Your task to perform on an android device: What's on the menu at Starbucks? Image 0: 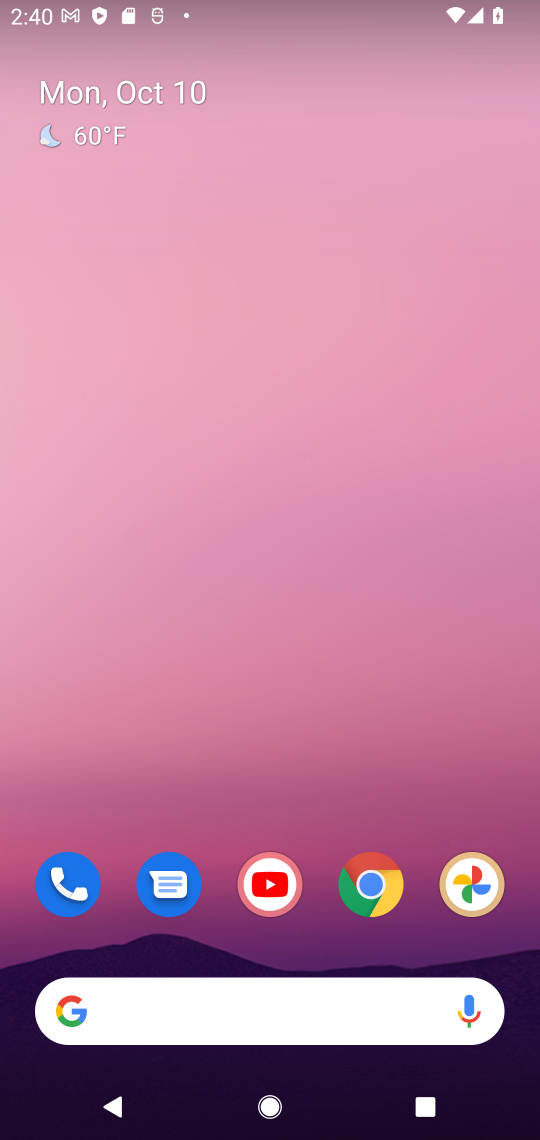
Step 0: click (338, 1003)
Your task to perform on an android device: What's on the menu at Starbucks? Image 1: 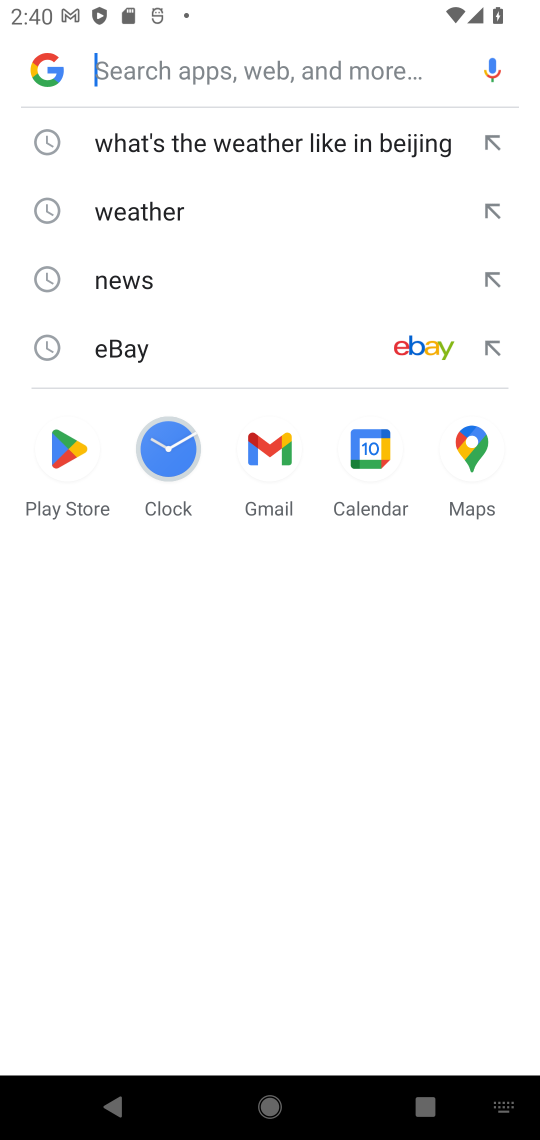
Step 1: click (362, 899)
Your task to perform on an android device: What's on the menu at Starbucks? Image 2: 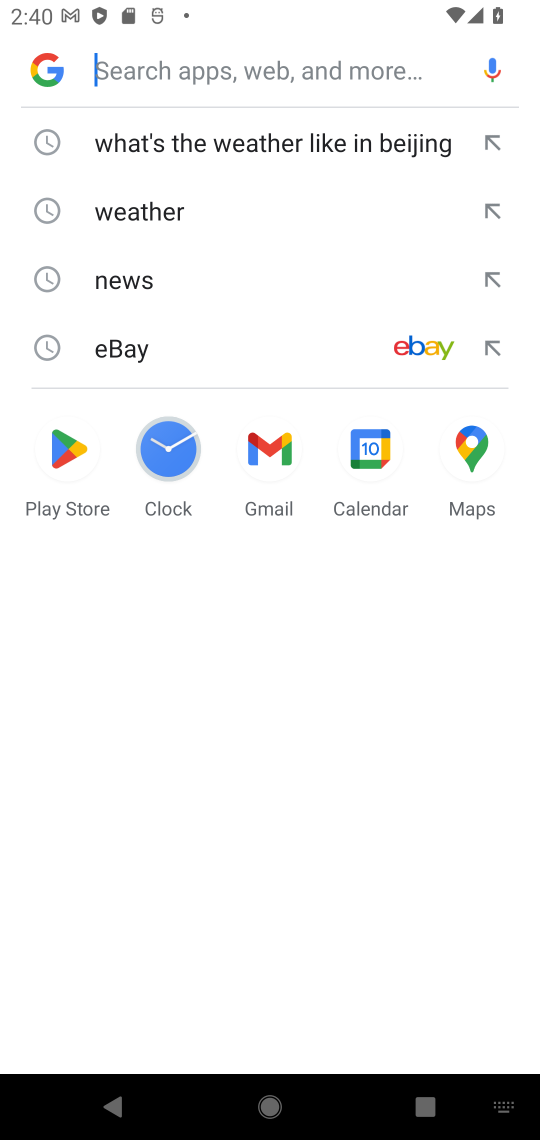
Step 2: click (265, 58)
Your task to perform on an android device: What's on the menu at Starbucks? Image 3: 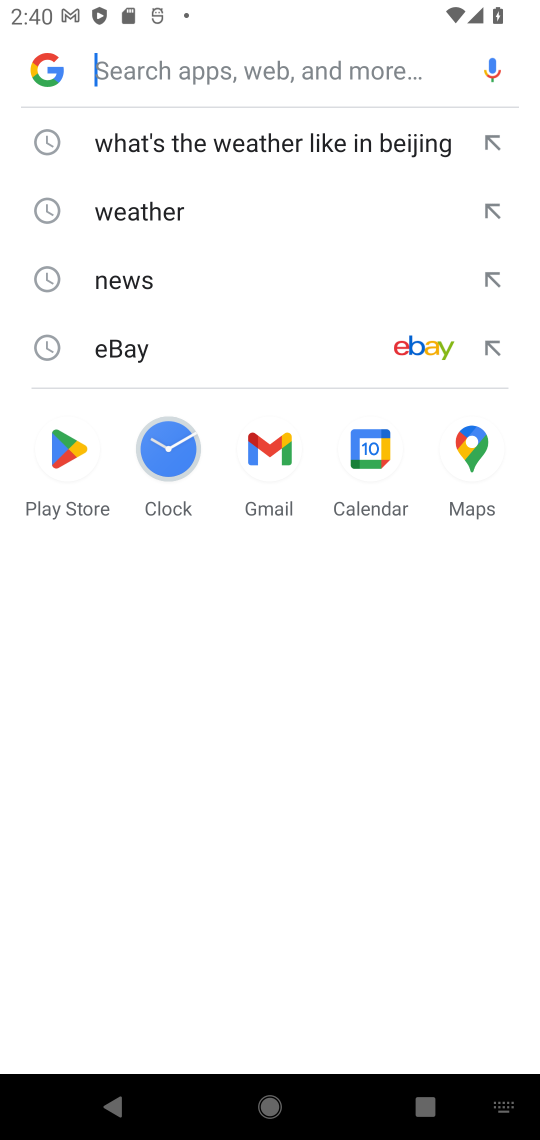
Step 3: click (248, 76)
Your task to perform on an android device: What's on the menu at Starbucks? Image 4: 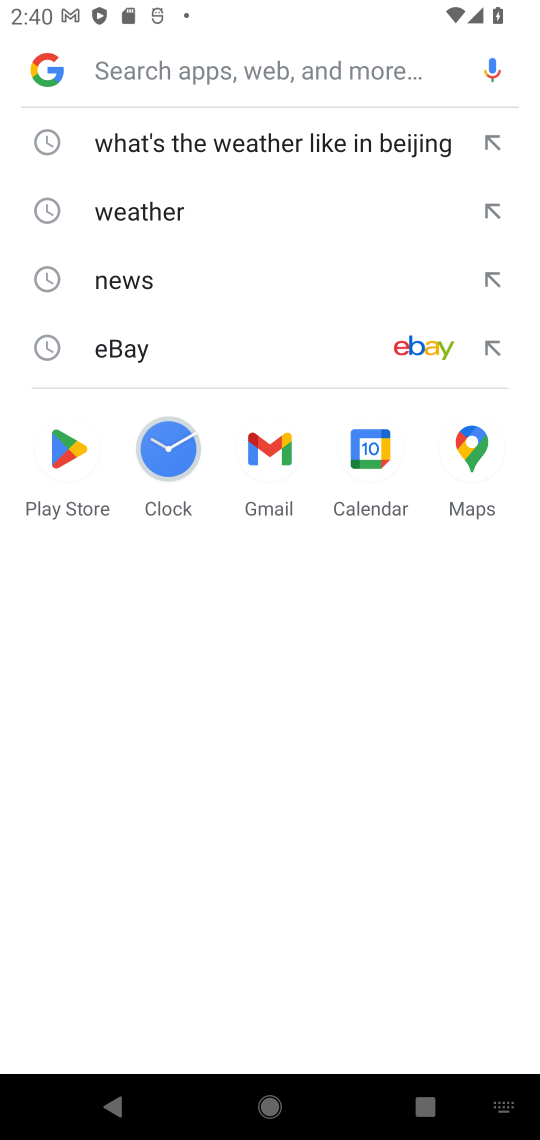
Step 4: type "What's on the menu at Starbucks"
Your task to perform on an android device: What's on the menu at Starbucks? Image 5: 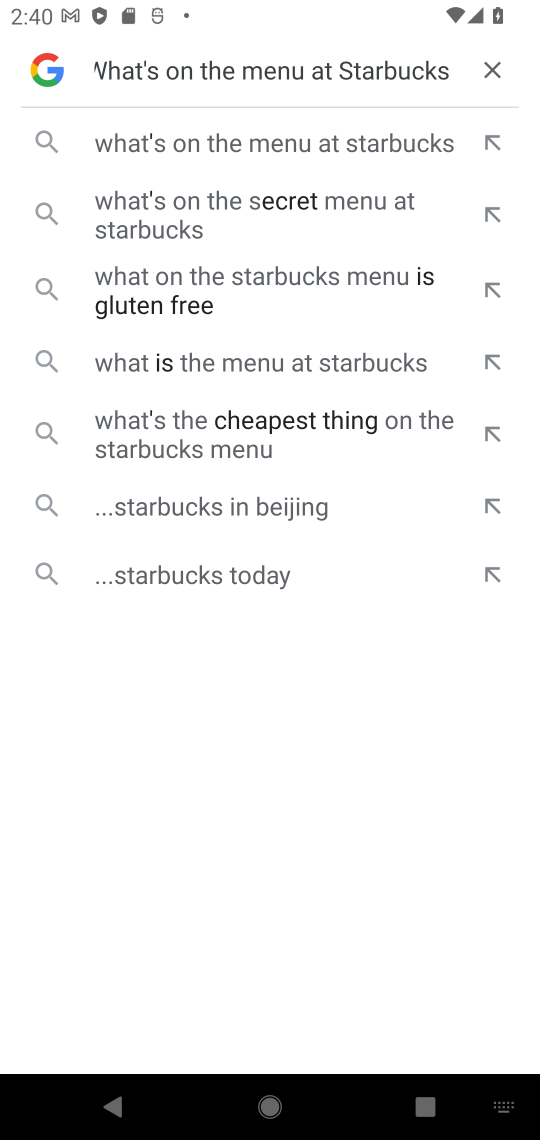
Step 5: click (209, 156)
Your task to perform on an android device: What's on the menu at Starbucks? Image 6: 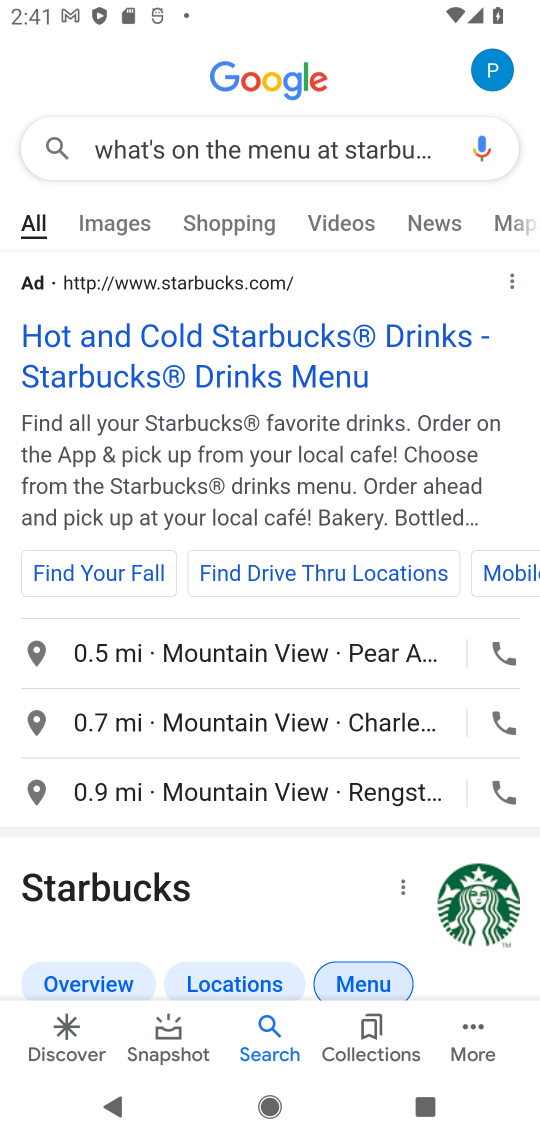
Step 6: drag from (188, 650) to (210, 306)
Your task to perform on an android device: What's on the menu at Starbucks? Image 7: 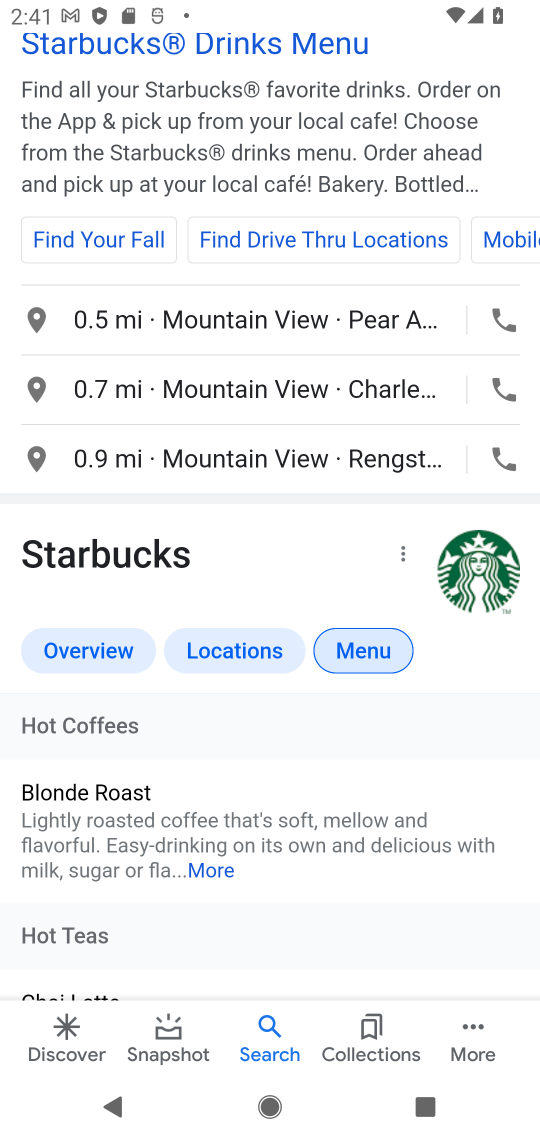
Step 7: drag from (178, 823) to (178, 388)
Your task to perform on an android device: What's on the menu at Starbucks? Image 8: 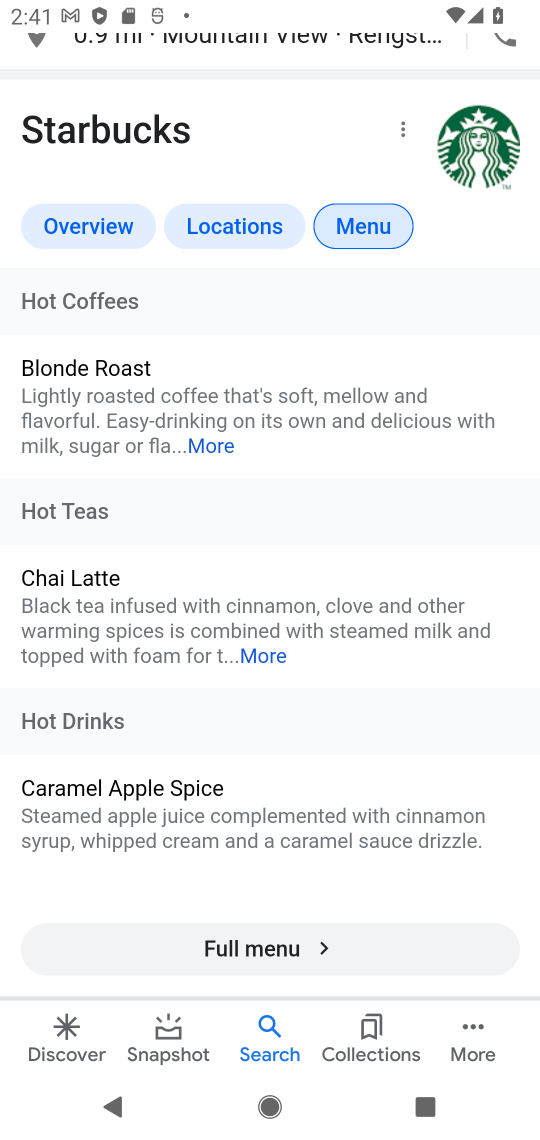
Step 8: drag from (168, 776) to (186, 469)
Your task to perform on an android device: What's on the menu at Starbucks? Image 9: 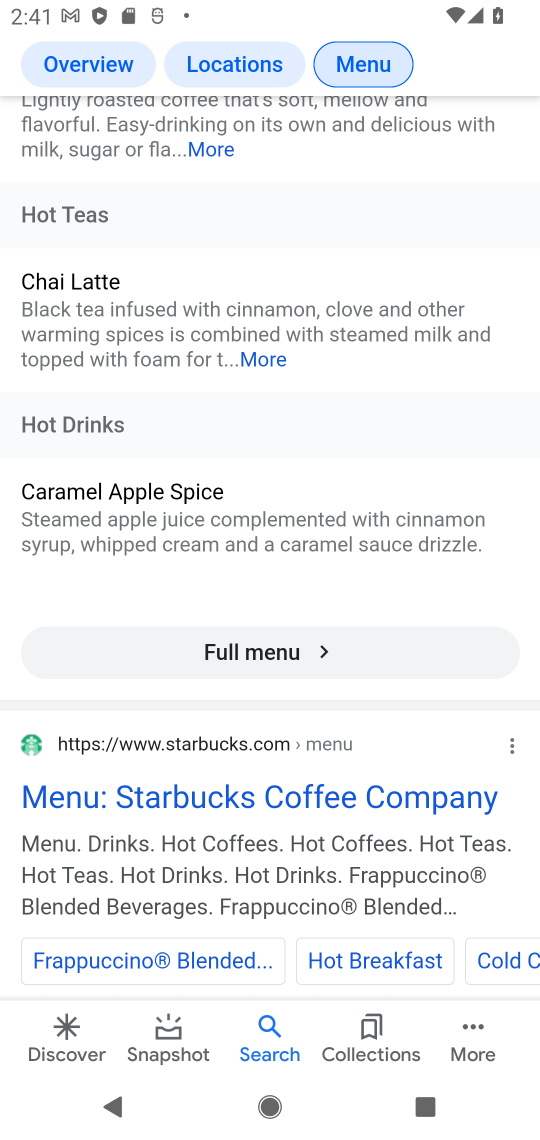
Step 9: drag from (168, 731) to (165, 359)
Your task to perform on an android device: What's on the menu at Starbucks? Image 10: 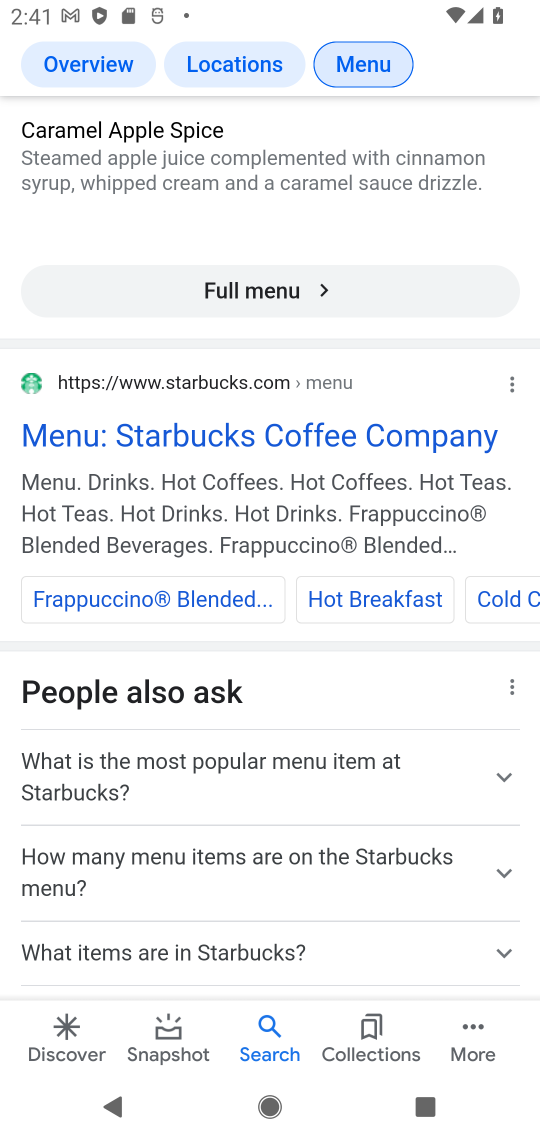
Step 10: drag from (207, 728) to (184, 1024)
Your task to perform on an android device: What's on the menu at Starbucks? Image 11: 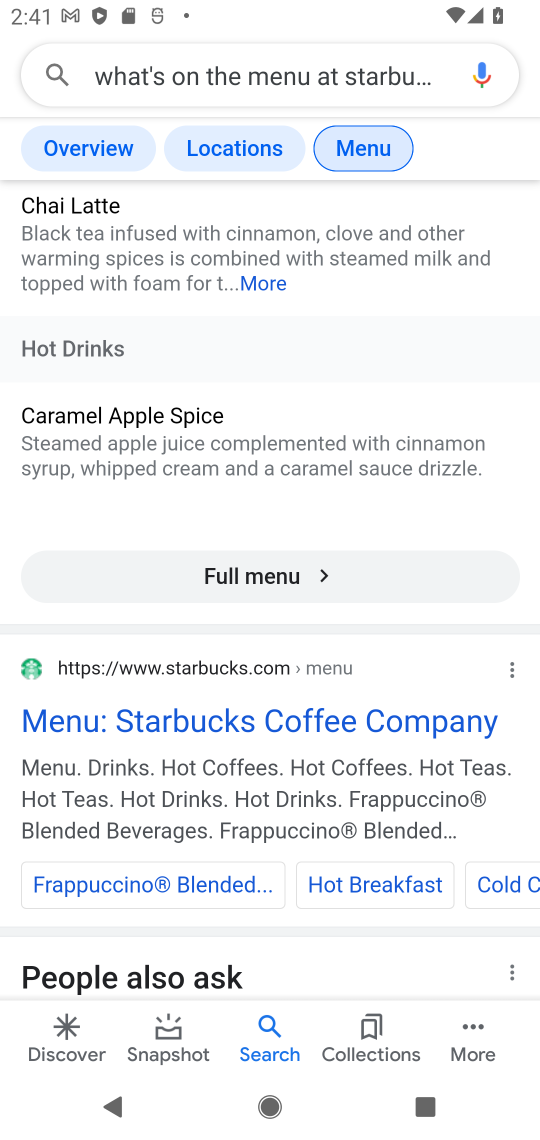
Step 11: drag from (266, 381) to (201, 1038)
Your task to perform on an android device: What's on the menu at Starbucks? Image 12: 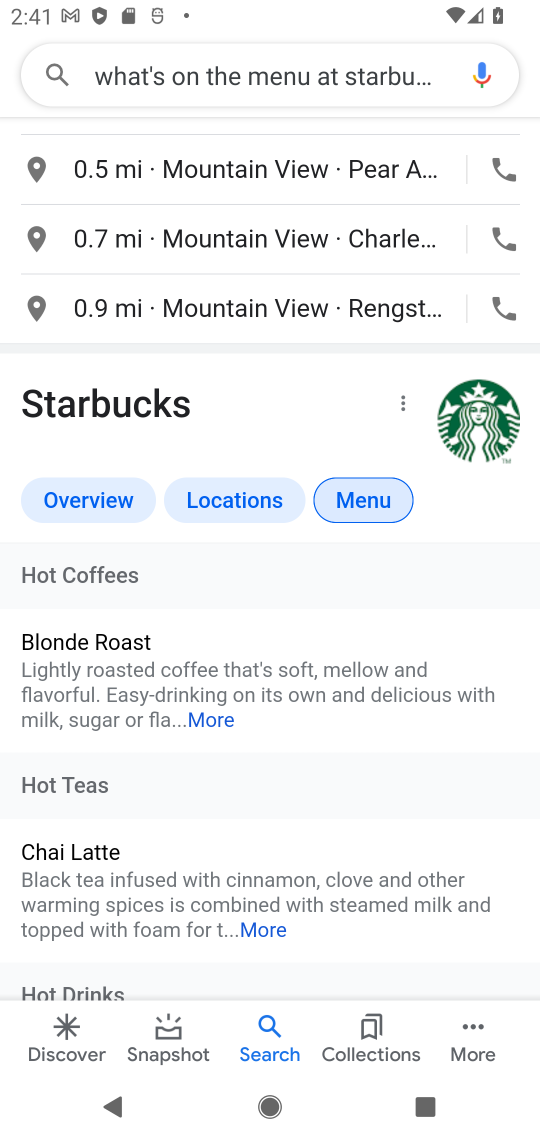
Step 12: drag from (282, 794) to (263, 1114)
Your task to perform on an android device: What's on the menu at Starbucks? Image 13: 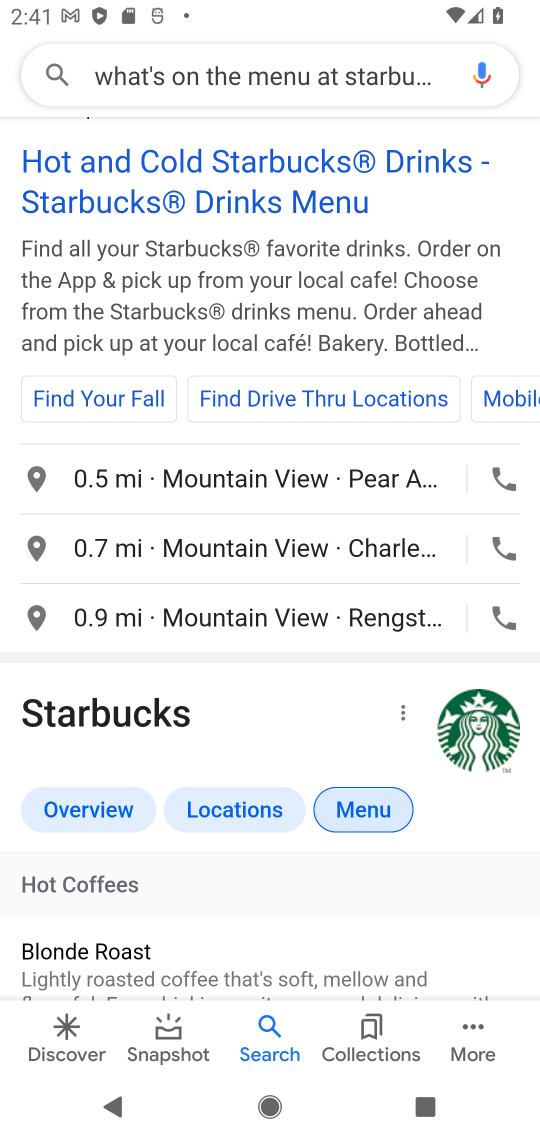
Step 13: click (353, 827)
Your task to perform on an android device: What's on the menu at Starbucks? Image 14: 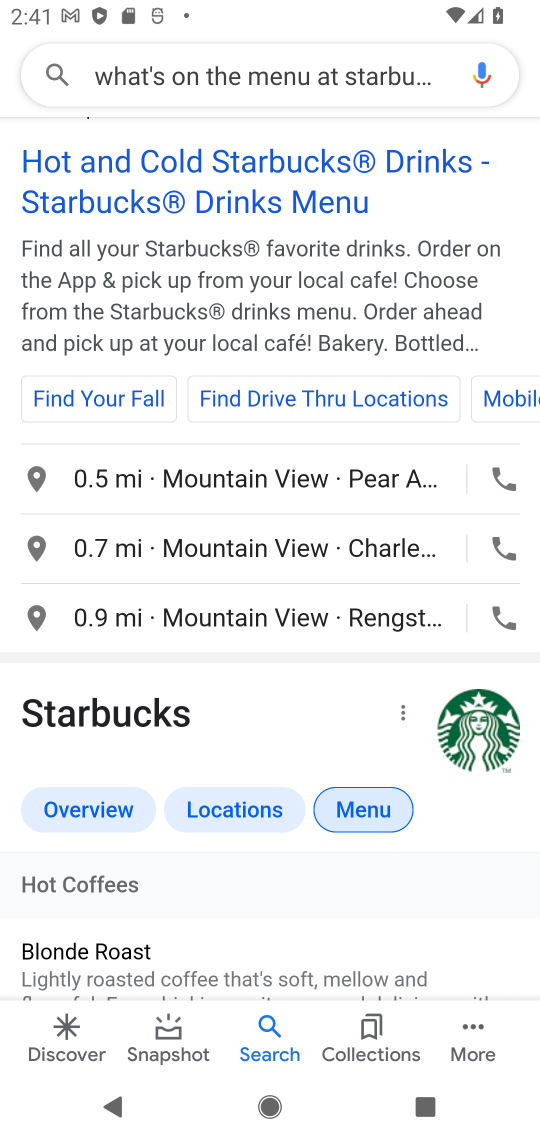
Step 14: click (377, 821)
Your task to perform on an android device: What's on the menu at Starbucks? Image 15: 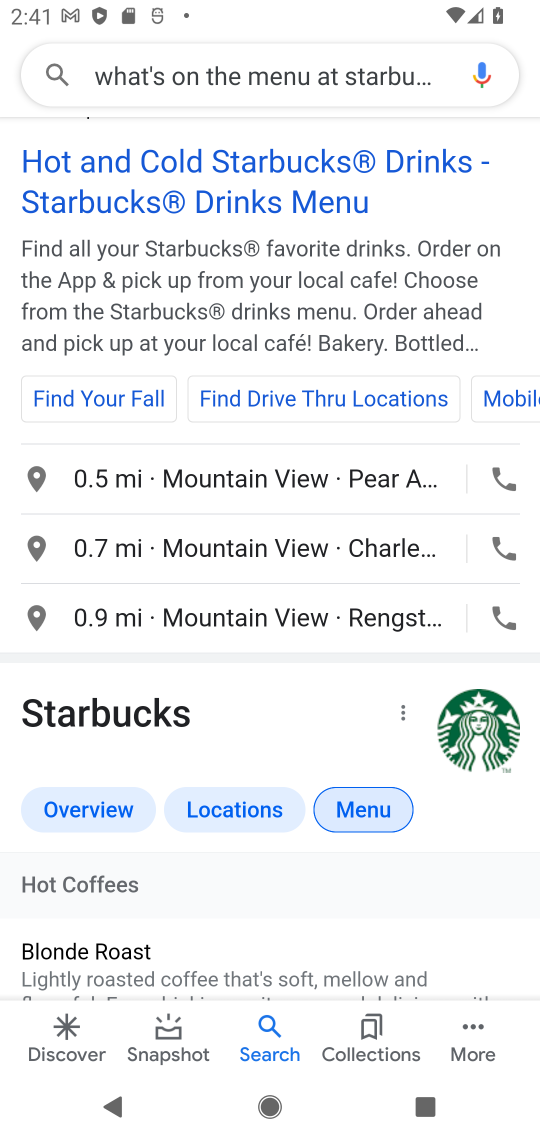
Step 15: click (360, 807)
Your task to perform on an android device: What's on the menu at Starbucks? Image 16: 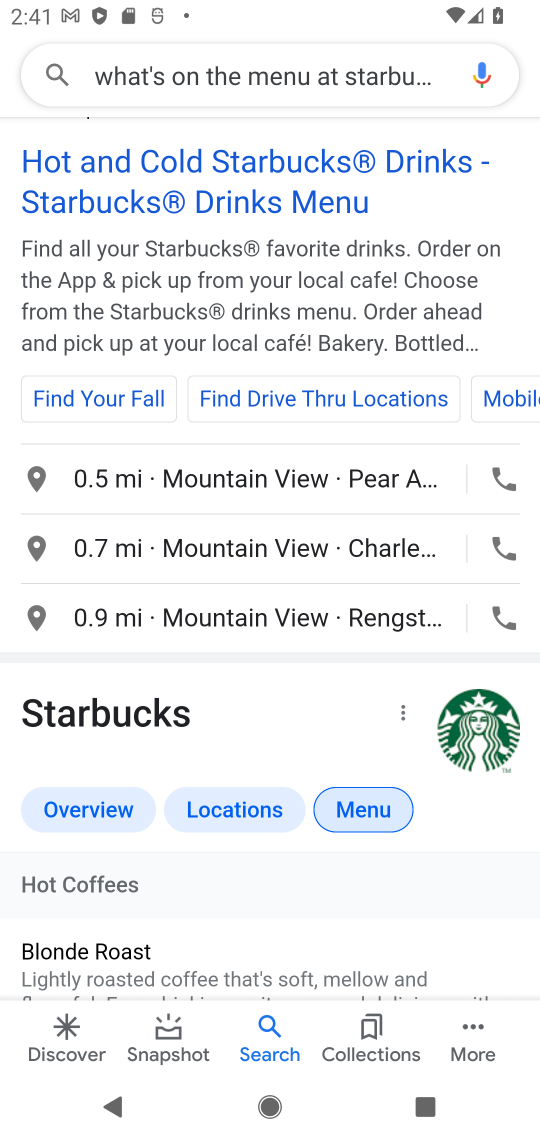
Step 16: click (364, 803)
Your task to perform on an android device: What's on the menu at Starbucks? Image 17: 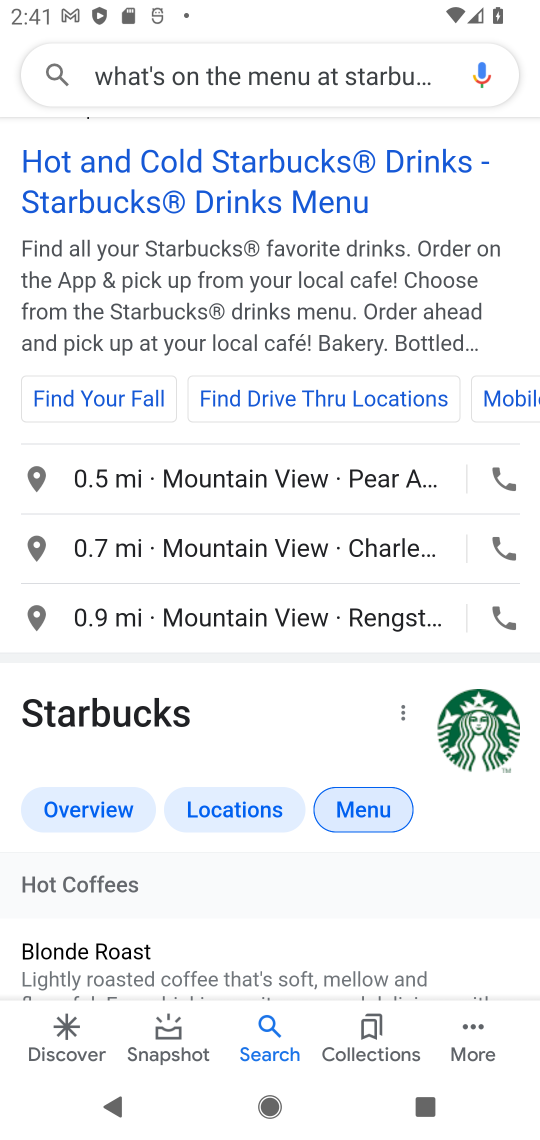
Step 17: click (358, 813)
Your task to perform on an android device: What's on the menu at Starbucks? Image 18: 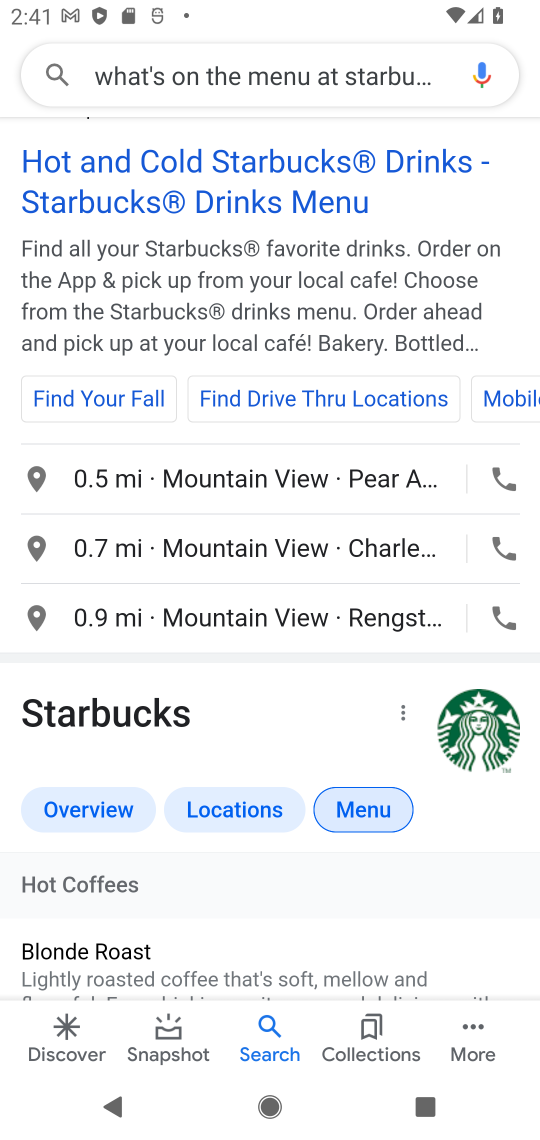
Step 18: drag from (299, 893) to (288, 672)
Your task to perform on an android device: What's on the menu at Starbucks? Image 19: 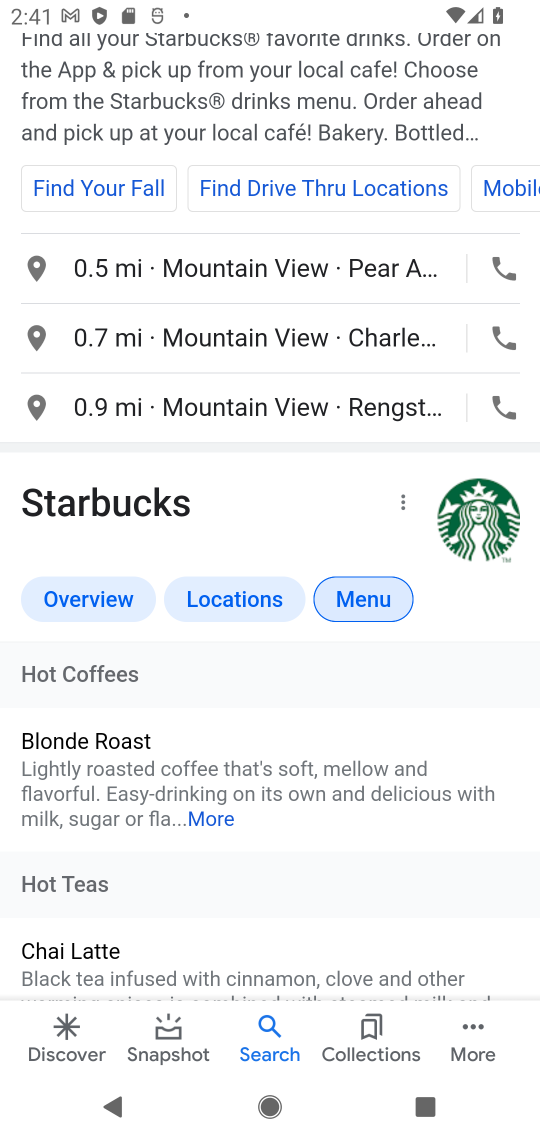
Step 19: click (346, 596)
Your task to perform on an android device: What's on the menu at Starbucks? Image 20: 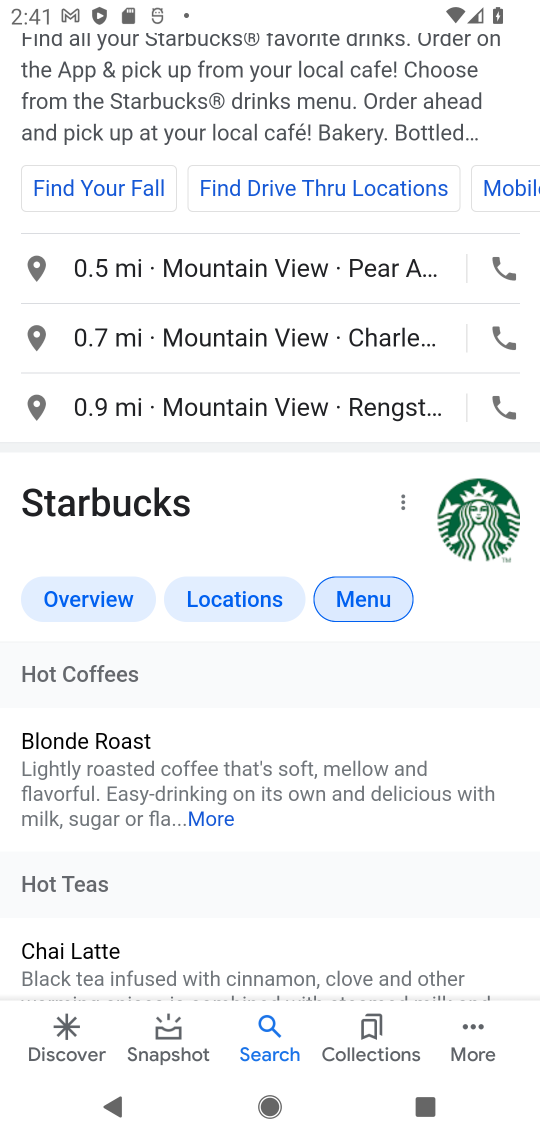
Step 20: task complete